Your task to perform on an android device: Go to Yahoo.com Image 0: 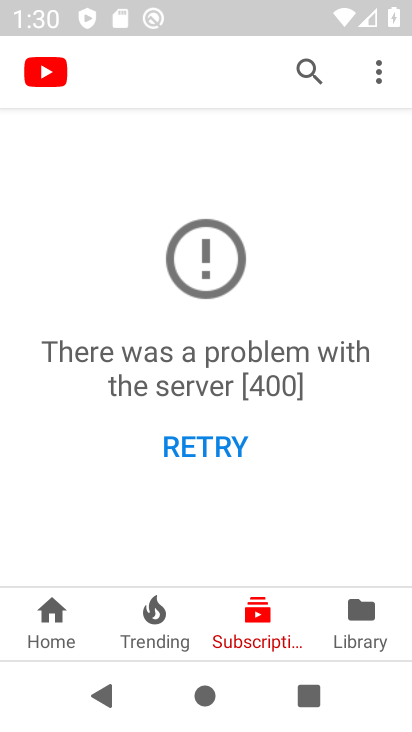
Step 0: press home button
Your task to perform on an android device: Go to Yahoo.com Image 1: 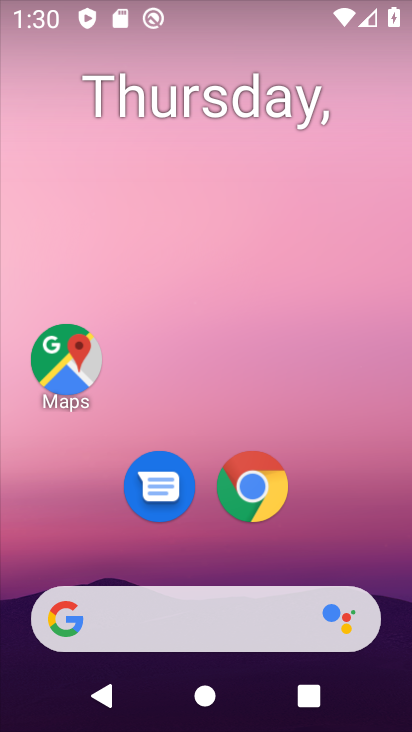
Step 1: click (278, 492)
Your task to perform on an android device: Go to Yahoo.com Image 2: 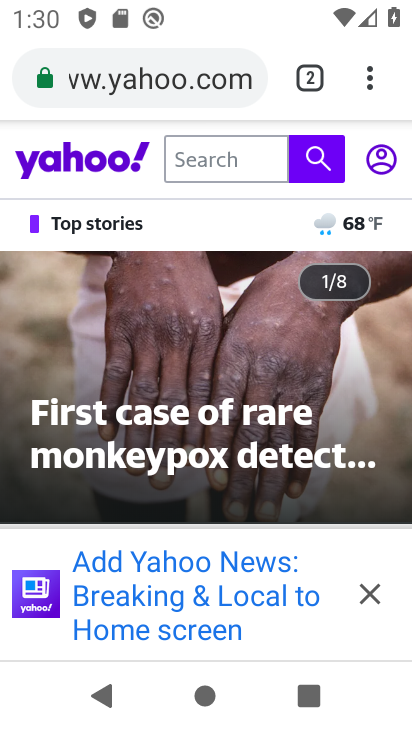
Step 2: task complete